Your task to perform on an android device: Open eBay Image 0: 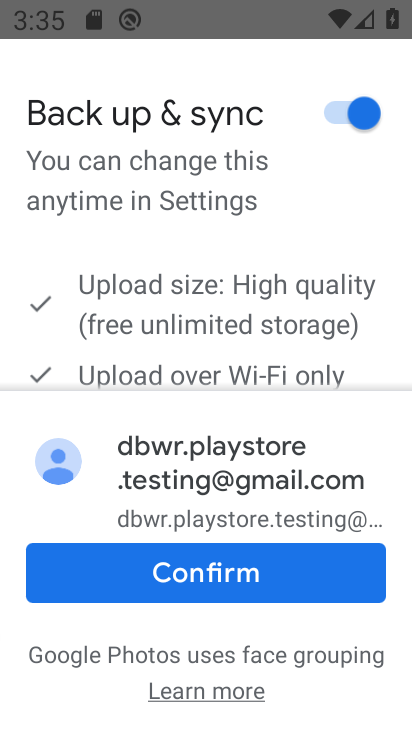
Step 0: press home button
Your task to perform on an android device: Open eBay Image 1: 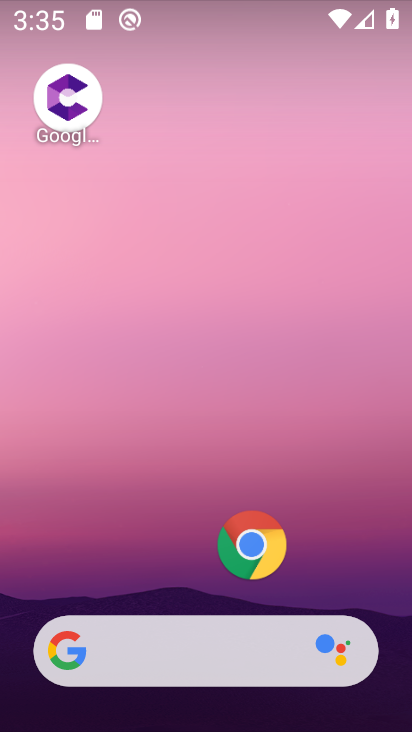
Step 1: click (263, 549)
Your task to perform on an android device: Open eBay Image 2: 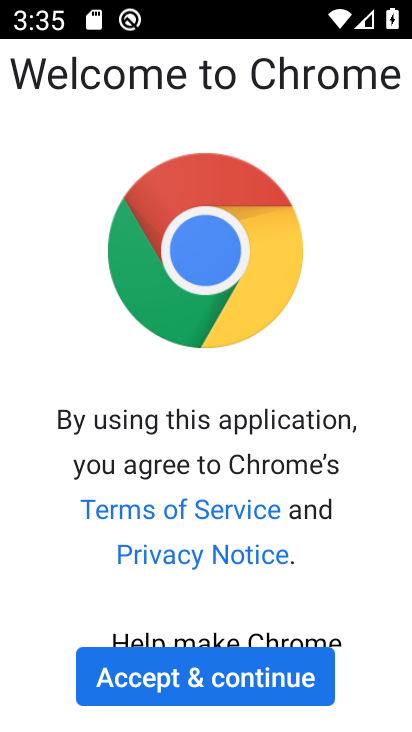
Step 2: click (242, 678)
Your task to perform on an android device: Open eBay Image 3: 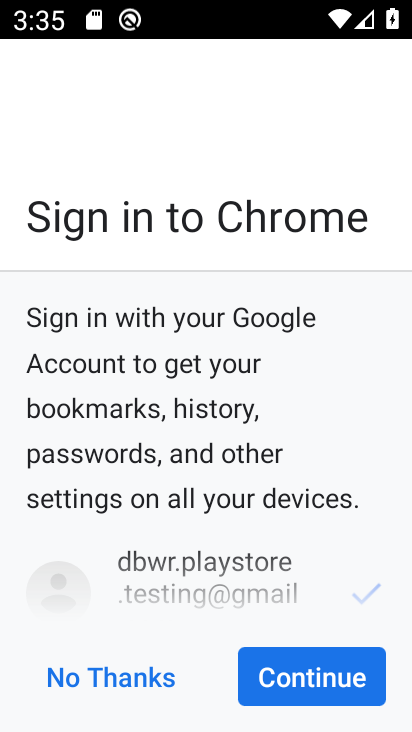
Step 3: click (298, 676)
Your task to perform on an android device: Open eBay Image 4: 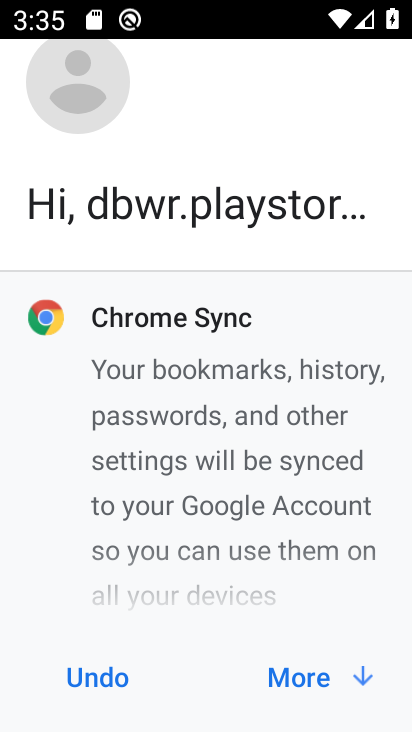
Step 4: click (298, 676)
Your task to perform on an android device: Open eBay Image 5: 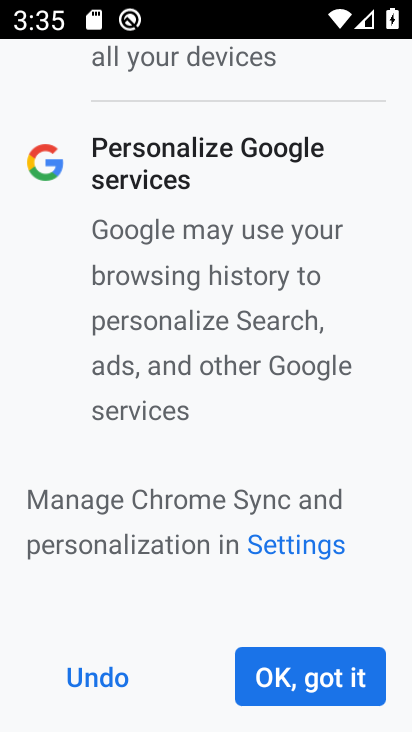
Step 5: click (298, 676)
Your task to perform on an android device: Open eBay Image 6: 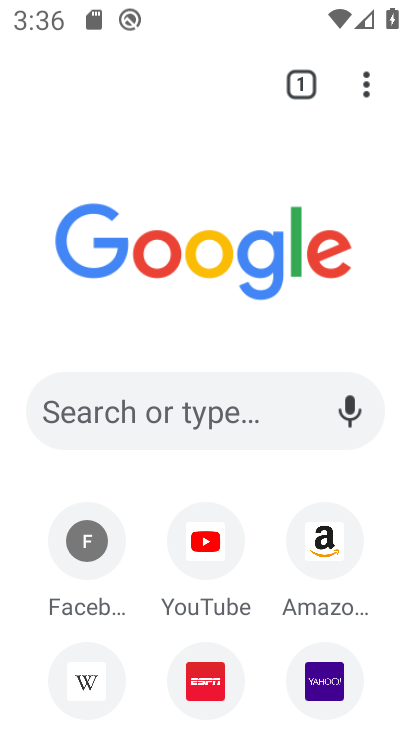
Step 6: click (259, 412)
Your task to perform on an android device: Open eBay Image 7: 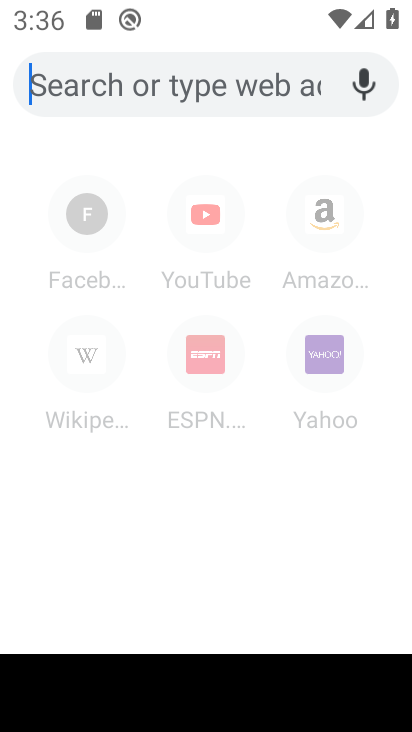
Step 7: type "eBay"
Your task to perform on an android device: Open eBay Image 8: 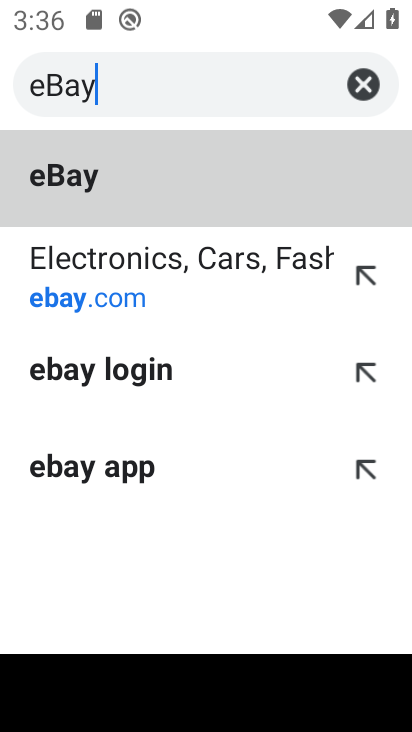
Step 8: click (185, 299)
Your task to perform on an android device: Open eBay Image 9: 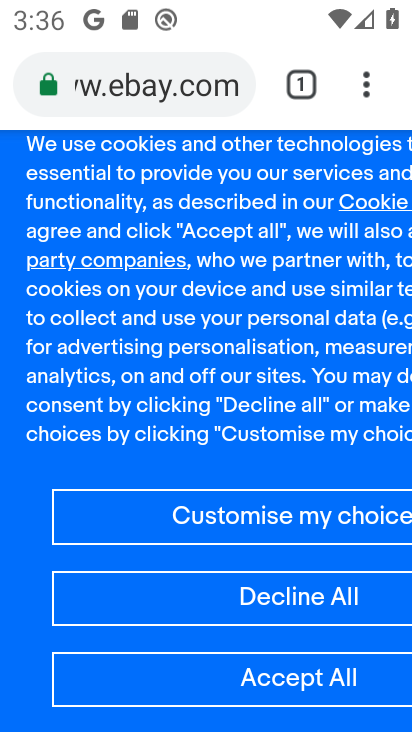
Step 9: task complete